Your task to perform on an android device: change your default location settings in chrome Image 0: 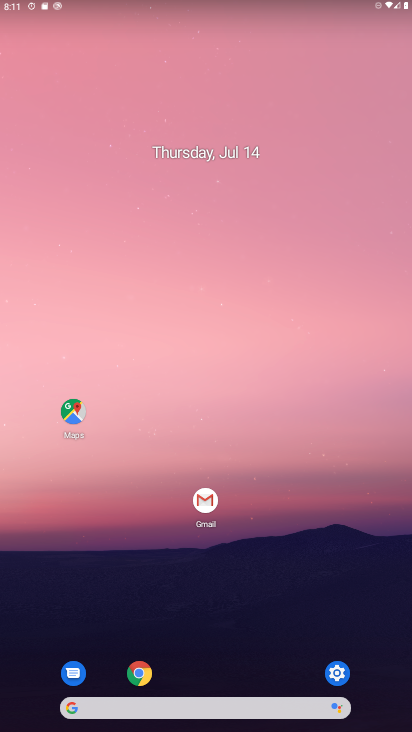
Step 0: click (144, 673)
Your task to perform on an android device: change your default location settings in chrome Image 1: 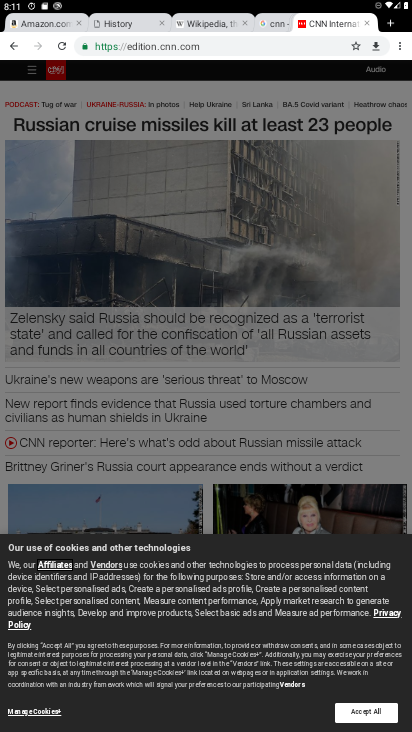
Step 1: click (400, 47)
Your task to perform on an android device: change your default location settings in chrome Image 2: 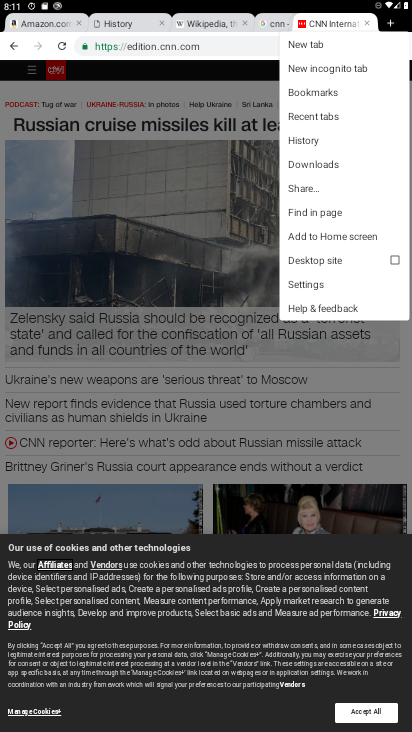
Step 2: click (317, 284)
Your task to perform on an android device: change your default location settings in chrome Image 3: 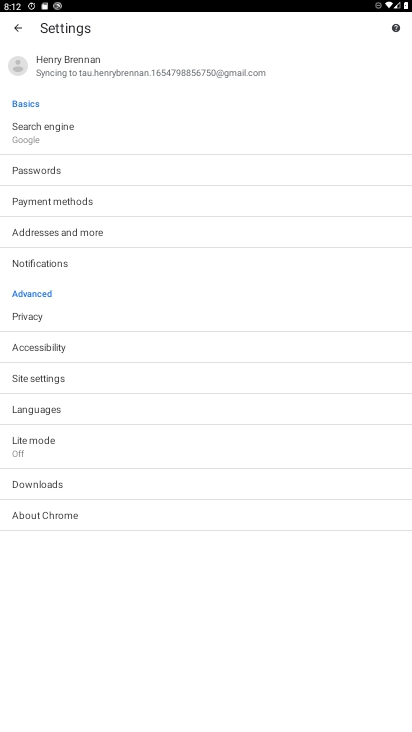
Step 3: task complete